Your task to perform on an android device: What is the speed of a tiger? Image 0: 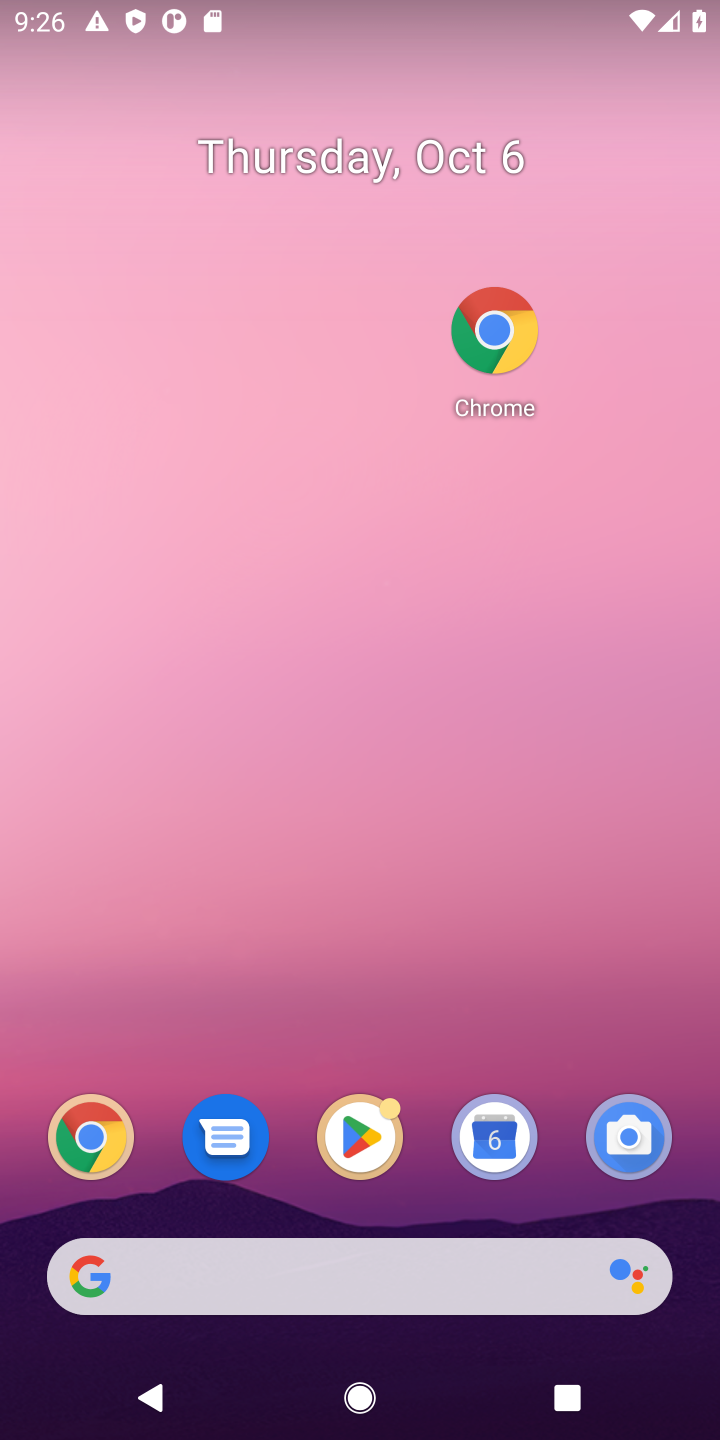
Step 0: click (97, 1144)
Your task to perform on an android device: What is the speed of a tiger? Image 1: 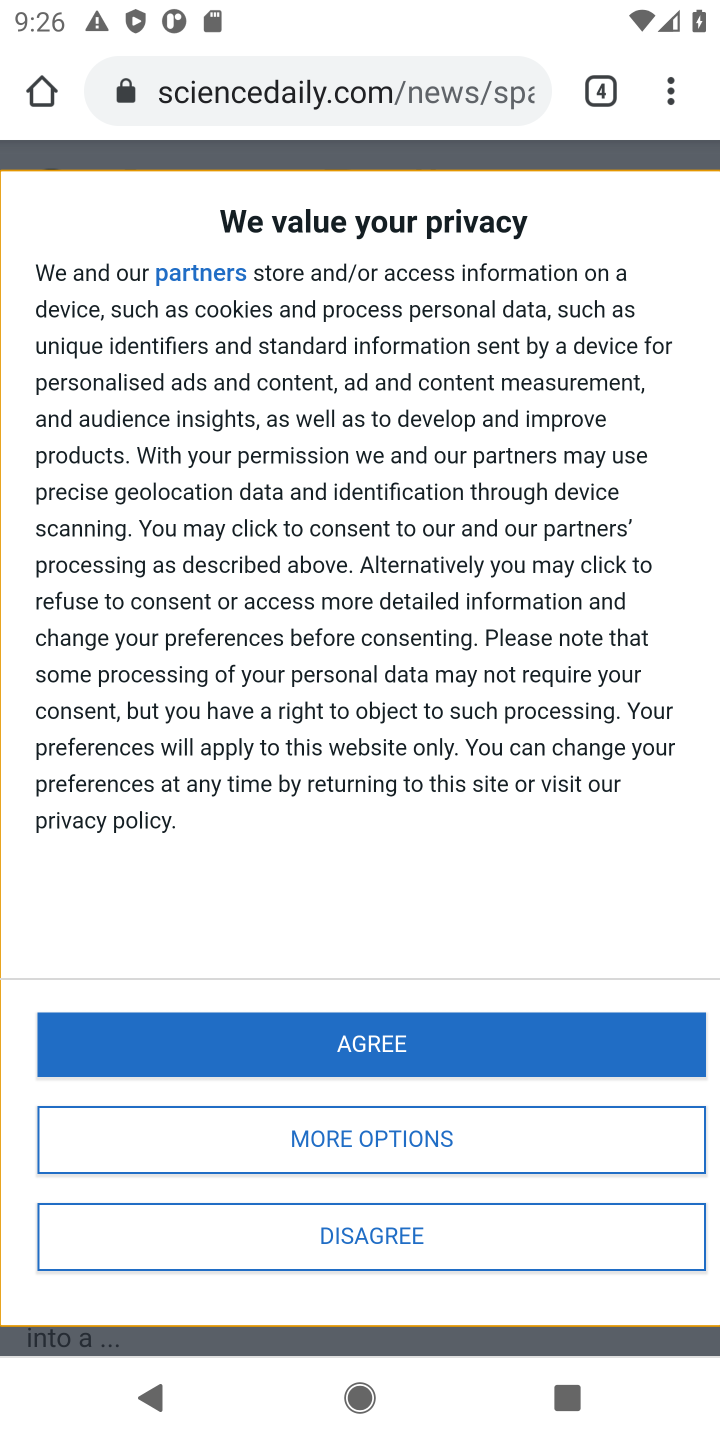
Step 1: click (515, 101)
Your task to perform on an android device: What is the speed of a tiger? Image 2: 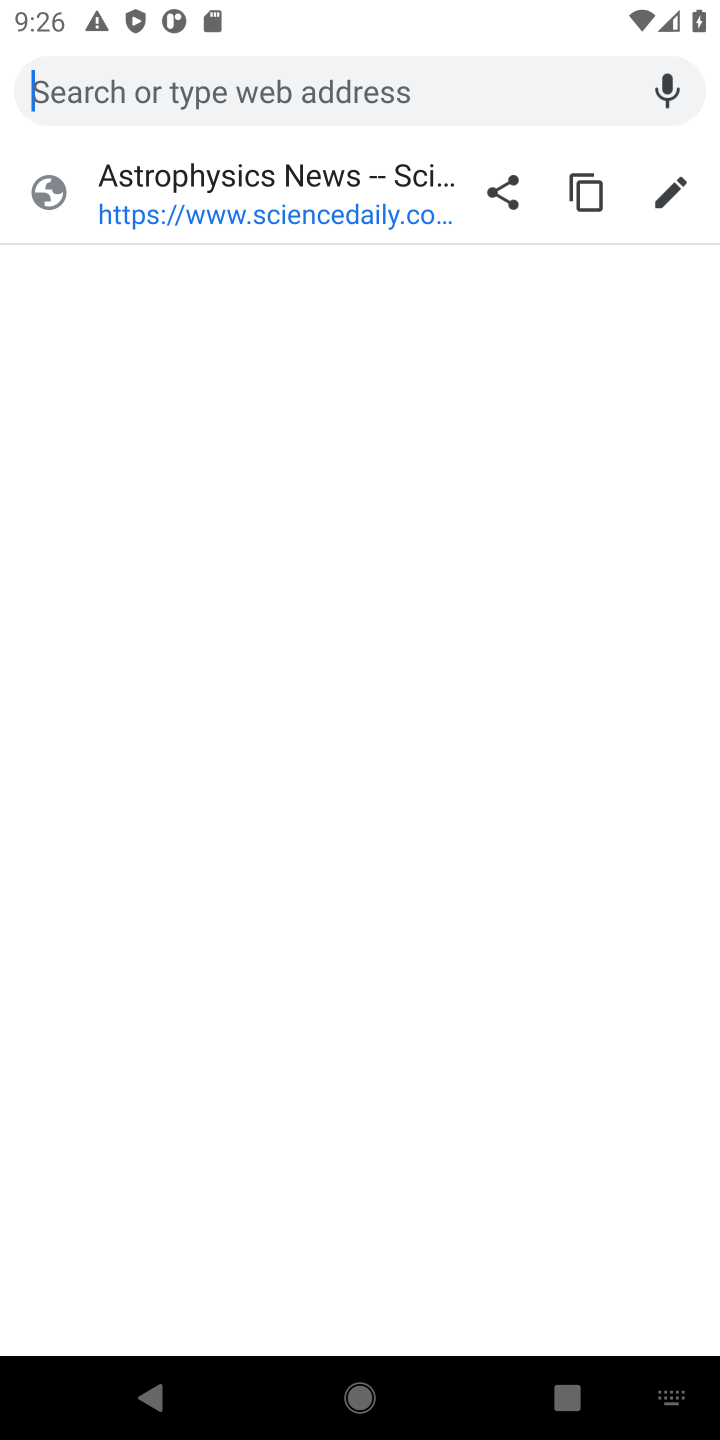
Step 2: type "What is the speed of a tiger?"
Your task to perform on an android device: What is the speed of a tiger? Image 3: 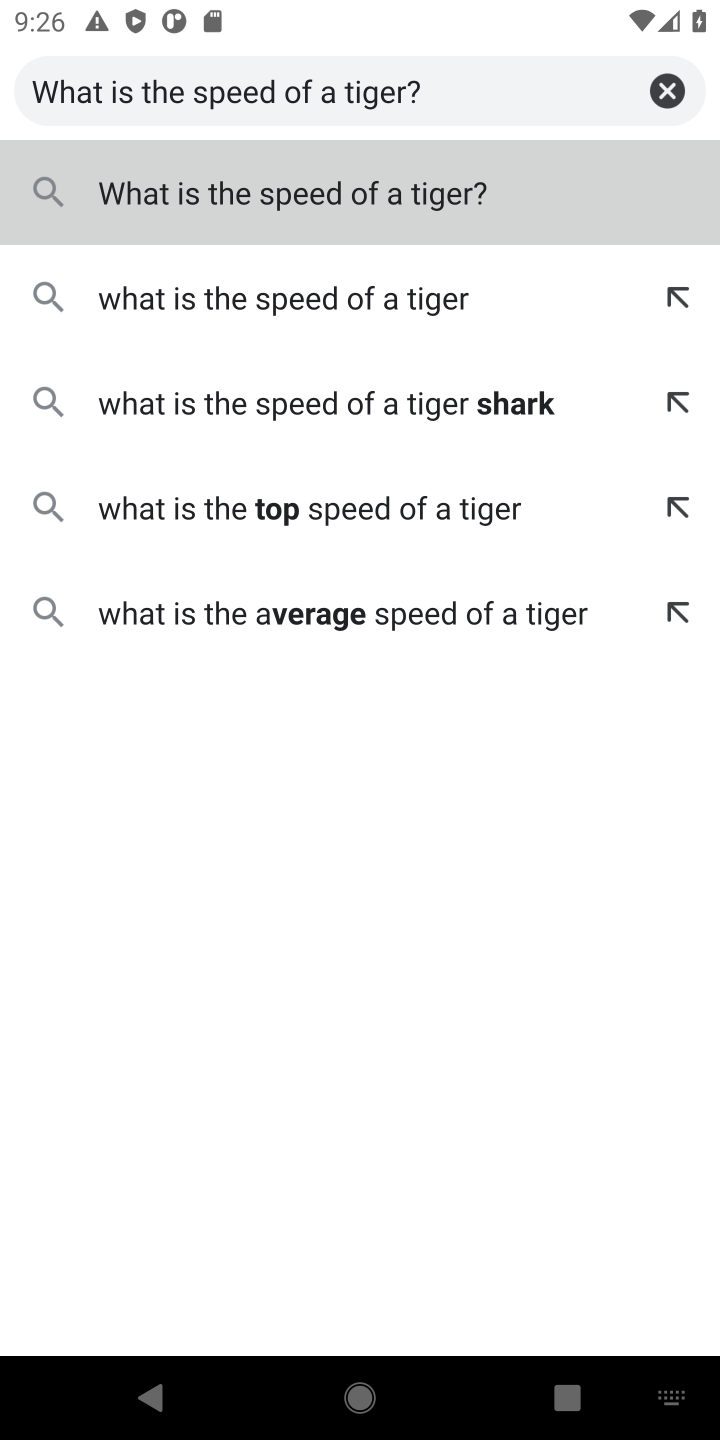
Step 3: click (272, 207)
Your task to perform on an android device: What is the speed of a tiger? Image 4: 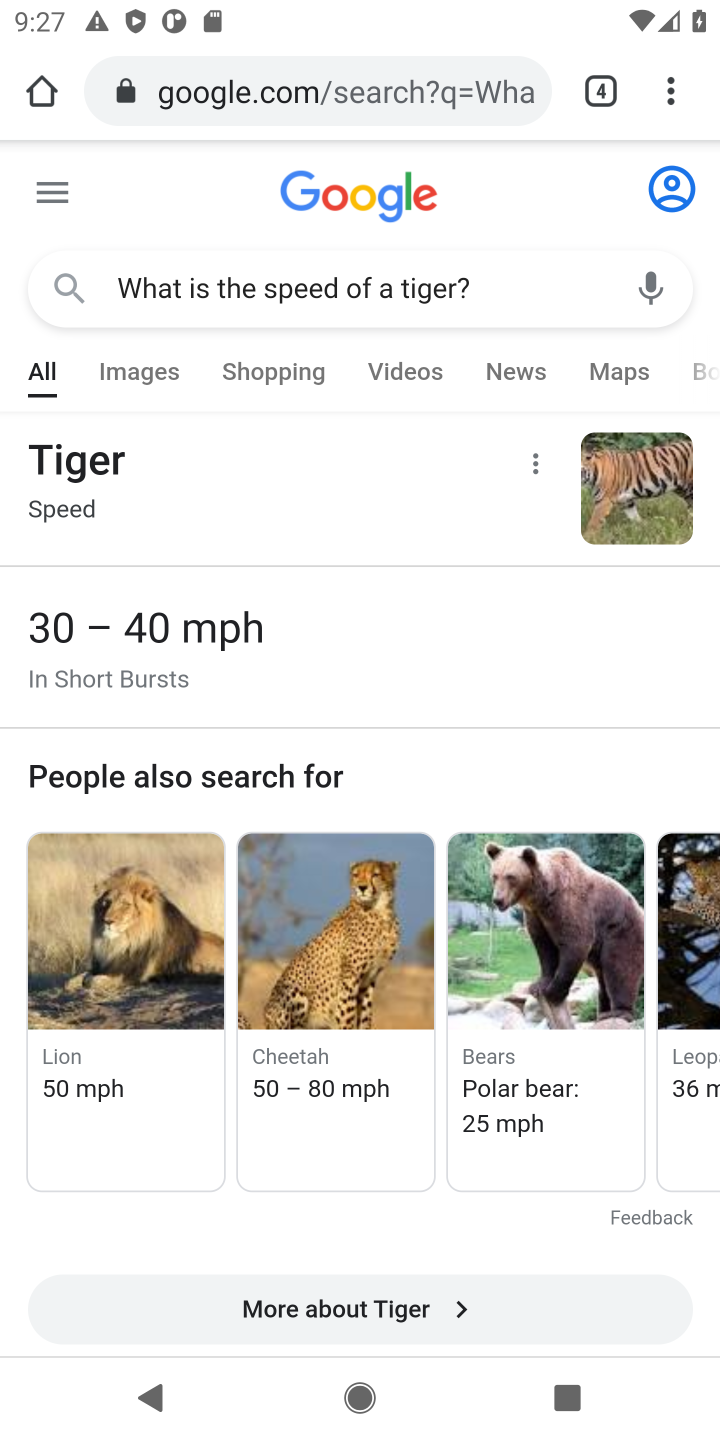
Step 4: click (47, 511)
Your task to perform on an android device: What is the speed of a tiger? Image 5: 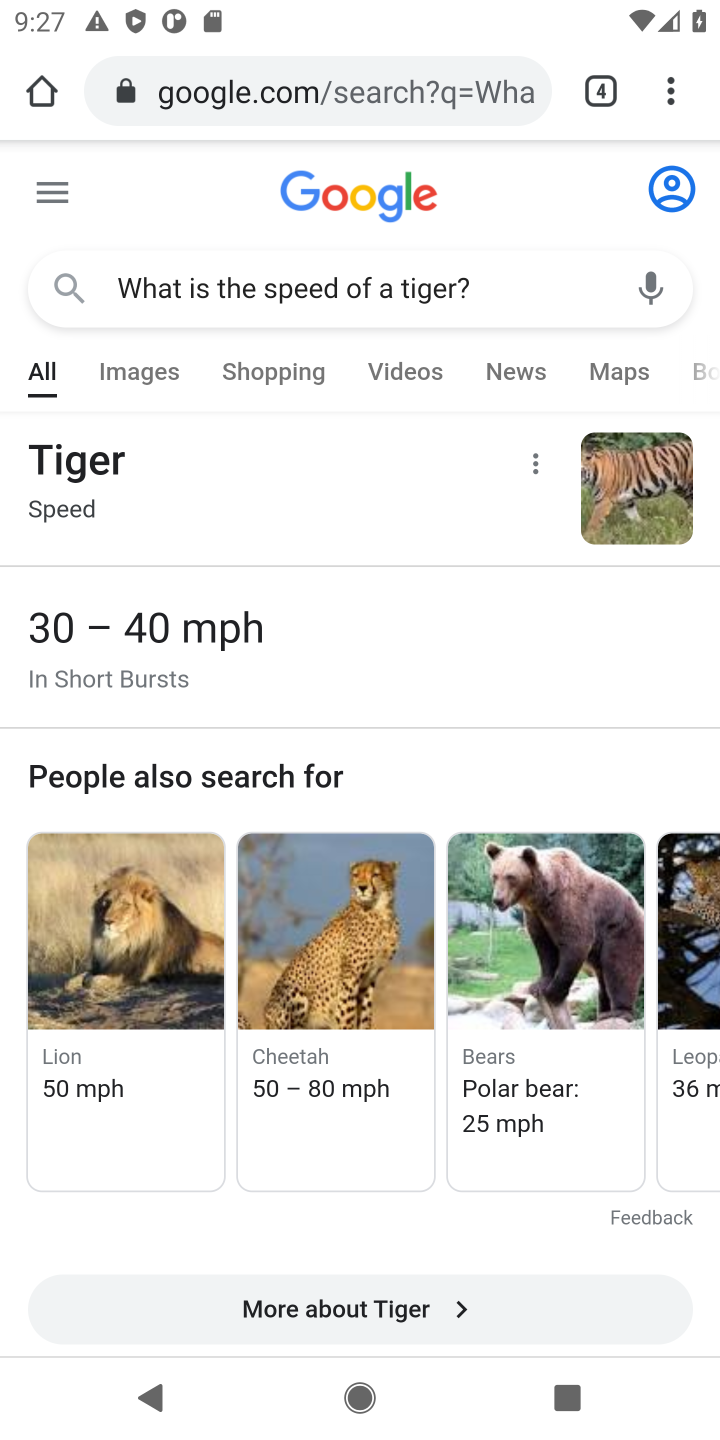
Step 5: click (95, 656)
Your task to perform on an android device: What is the speed of a tiger? Image 6: 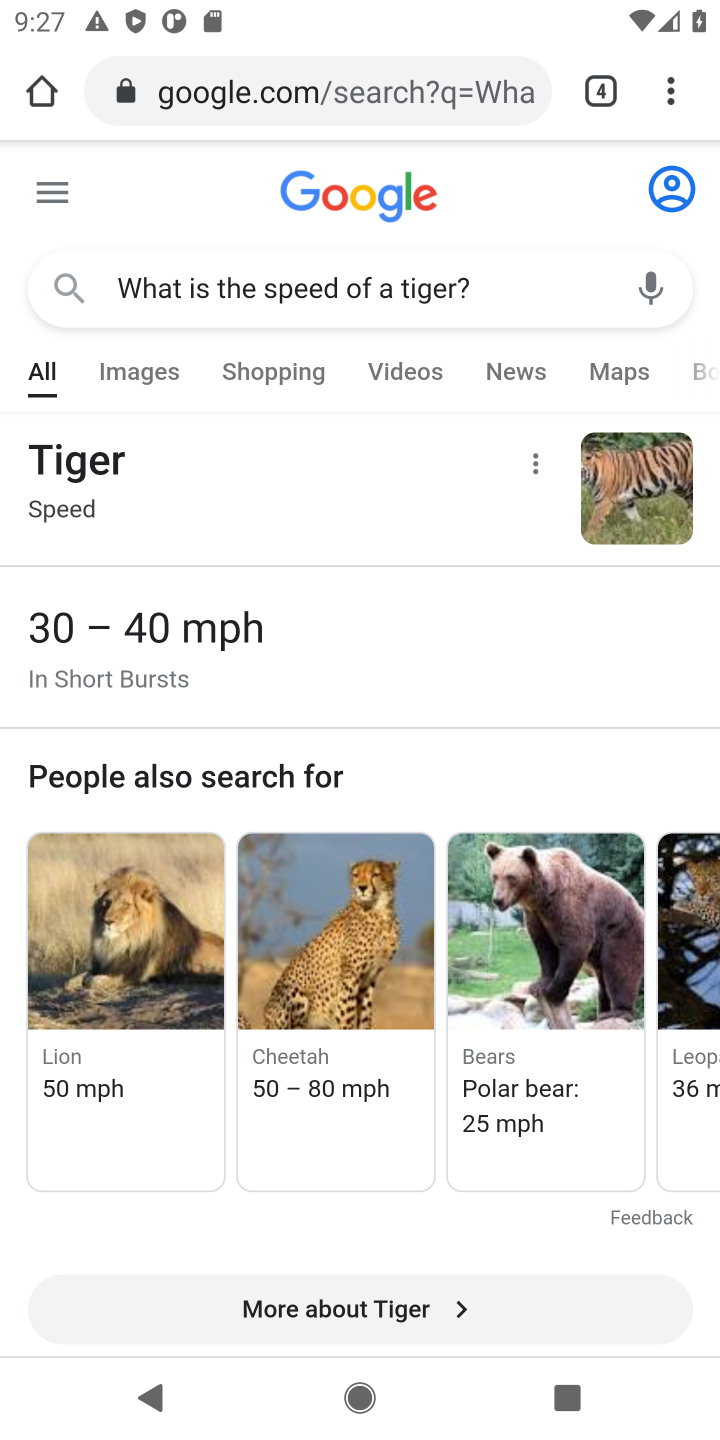
Step 6: task complete